Your task to perform on an android device: open chrome and create a bookmark for the current page Image 0: 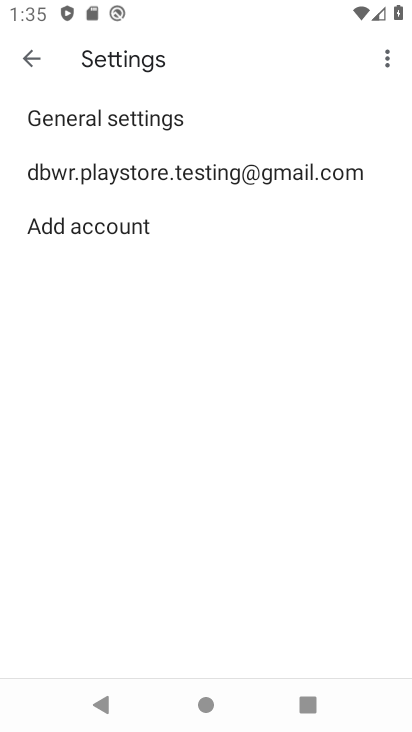
Step 0: press home button
Your task to perform on an android device: open chrome and create a bookmark for the current page Image 1: 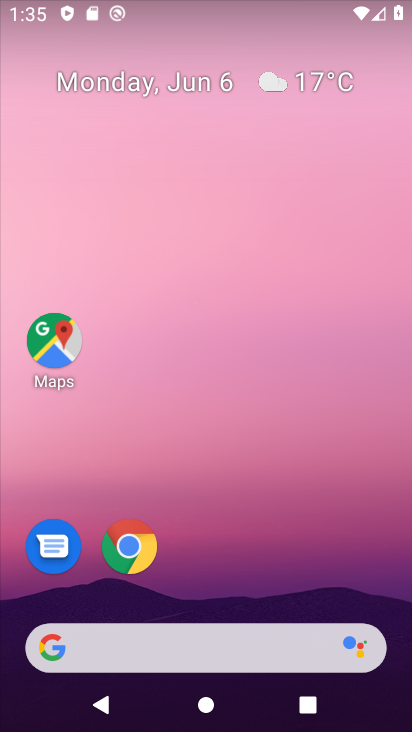
Step 1: click (117, 547)
Your task to perform on an android device: open chrome and create a bookmark for the current page Image 2: 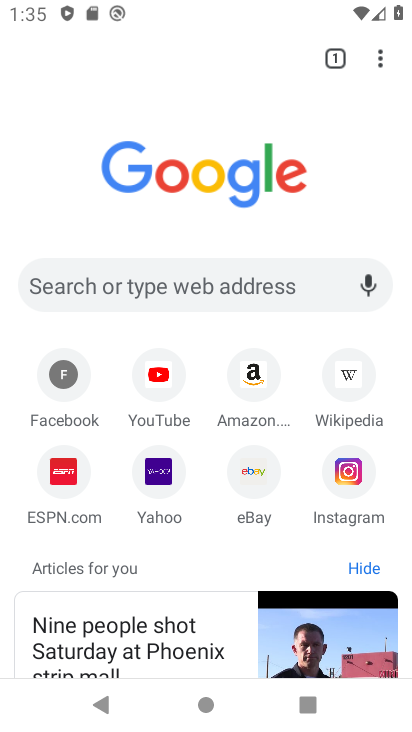
Step 2: click (385, 64)
Your task to perform on an android device: open chrome and create a bookmark for the current page Image 3: 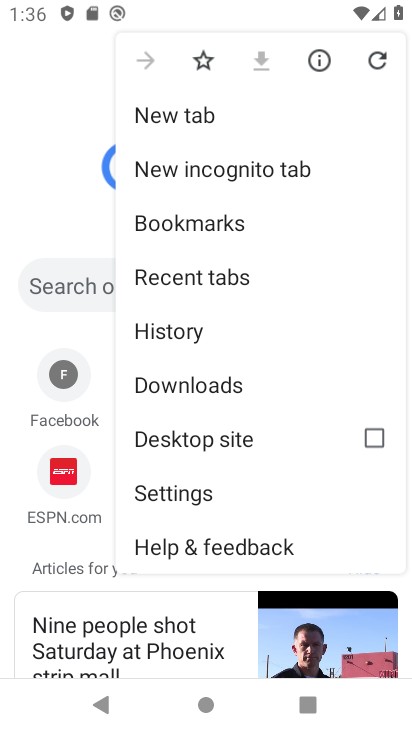
Step 3: click (202, 59)
Your task to perform on an android device: open chrome and create a bookmark for the current page Image 4: 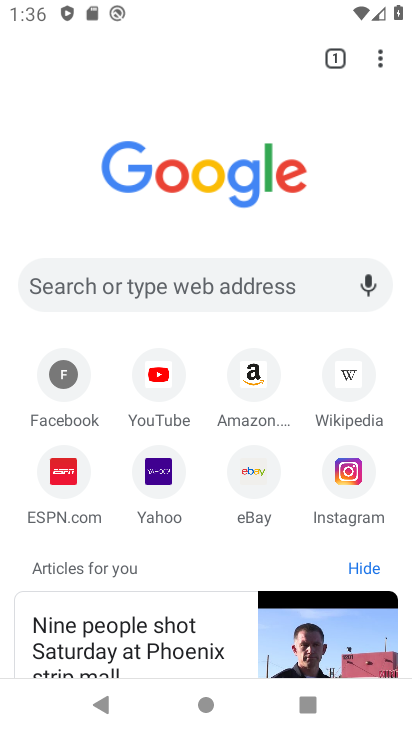
Step 4: click (380, 57)
Your task to perform on an android device: open chrome and create a bookmark for the current page Image 5: 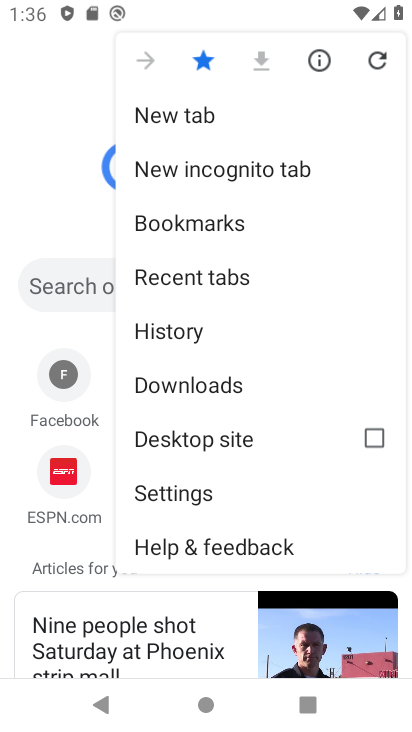
Step 5: task complete